Your task to perform on an android device: clear all cookies in the chrome app Image 0: 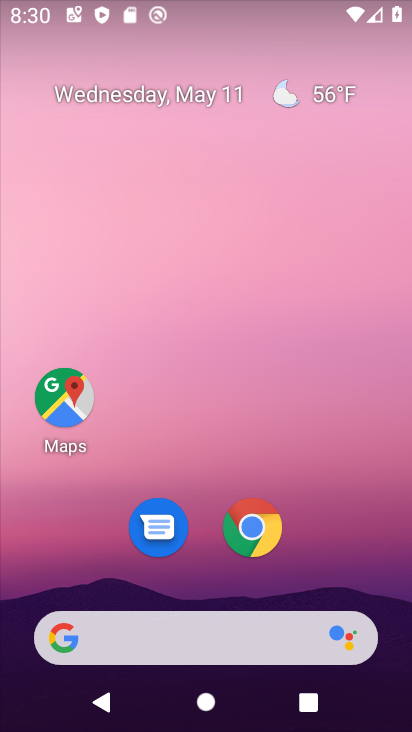
Step 0: click (253, 536)
Your task to perform on an android device: clear all cookies in the chrome app Image 1: 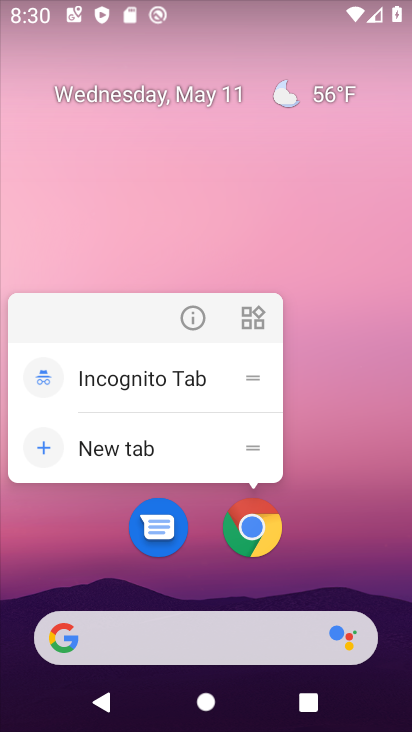
Step 1: click (253, 536)
Your task to perform on an android device: clear all cookies in the chrome app Image 2: 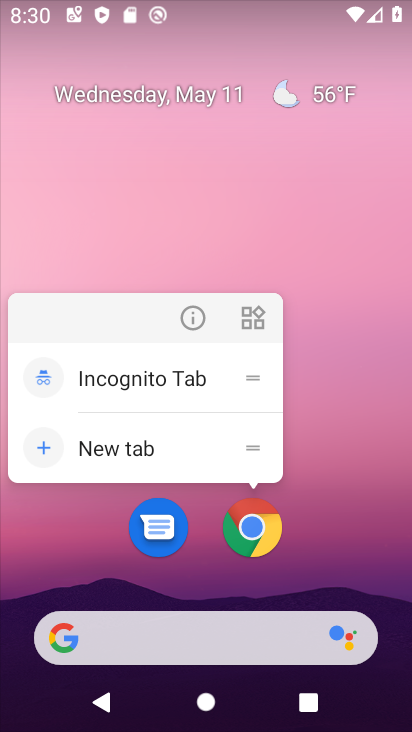
Step 2: click (254, 535)
Your task to perform on an android device: clear all cookies in the chrome app Image 3: 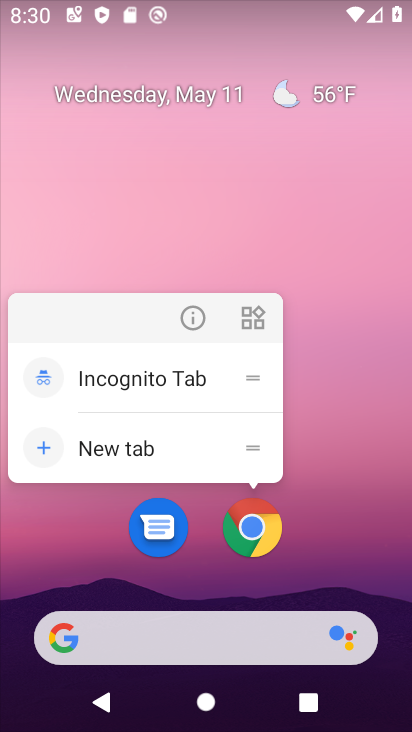
Step 3: click (262, 525)
Your task to perform on an android device: clear all cookies in the chrome app Image 4: 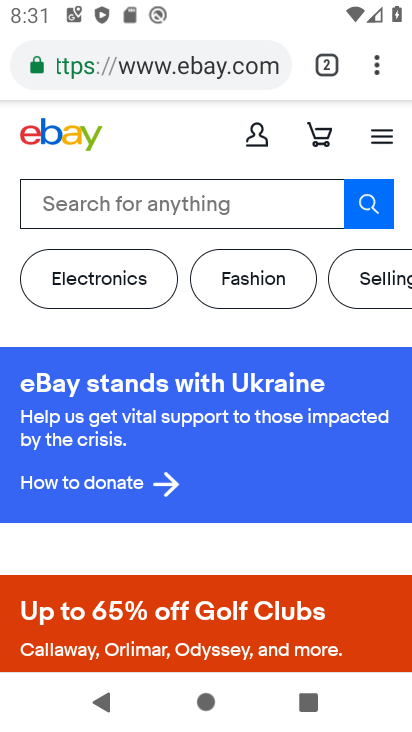
Step 4: drag from (378, 66) to (296, 583)
Your task to perform on an android device: clear all cookies in the chrome app Image 5: 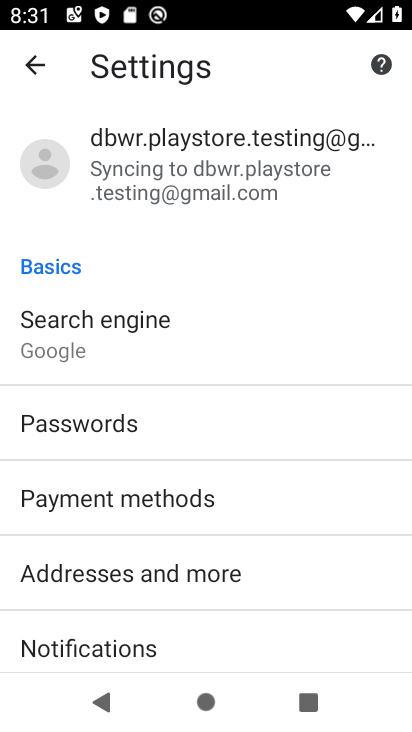
Step 5: drag from (197, 634) to (282, 241)
Your task to perform on an android device: clear all cookies in the chrome app Image 6: 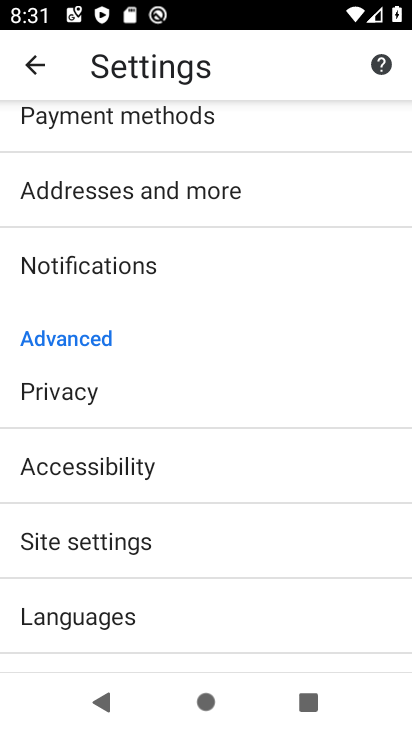
Step 6: click (128, 550)
Your task to perform on an android device: clear all cookies in the chrome app Image 7: 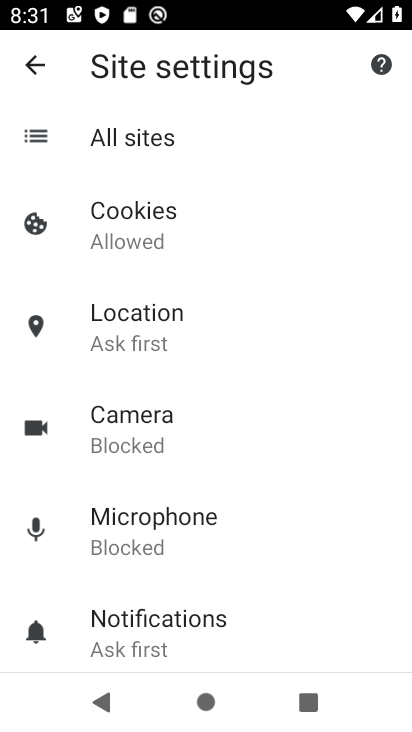
Step 7: press back button
Your task to perform on an android device: clear all cookies in the chrome app Image 8: 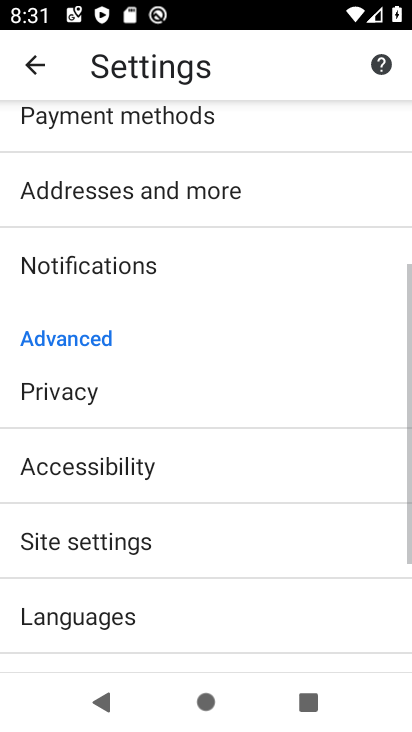
Step 8: drag from (122, 593) to (201, 504)
Your task to perform on an android device: clear all cookies in the chrome app Image 9: 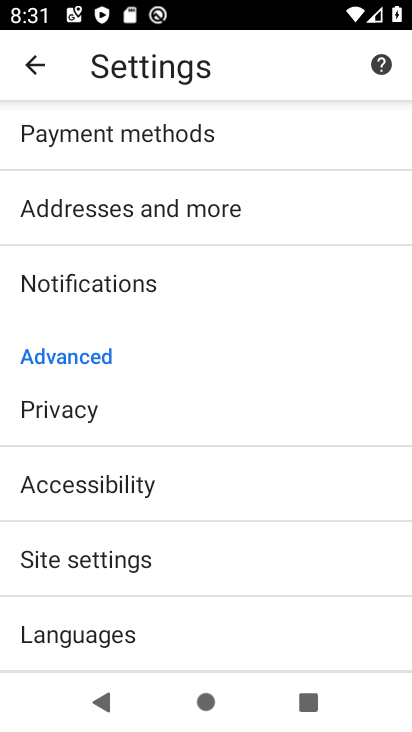
Step 9: click (139, 410)
Your task to perform on an android device: clear all cookies in the chrome app Image 10: 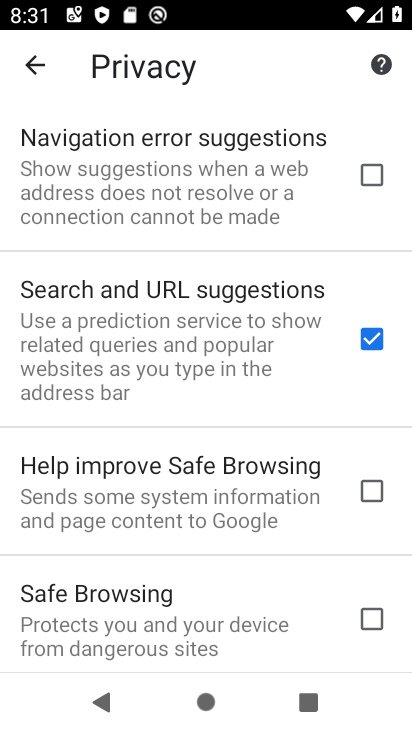
Step 10: drag from (160, 668) to (273, 141)
Your task to perform on an android device: clear all cookies in the chrome app Image 11: 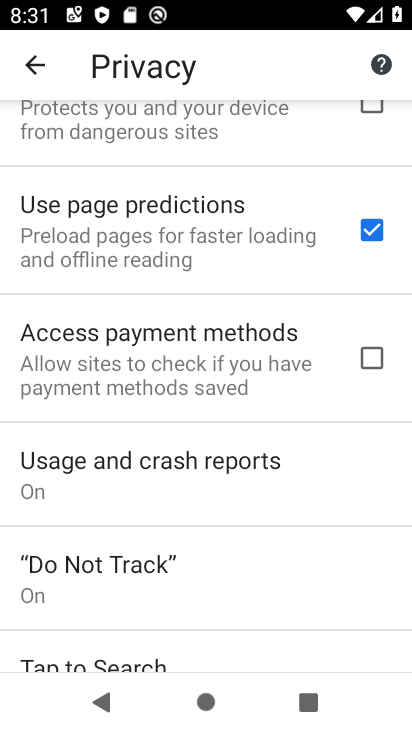
Step 11: drag from (174, 616) to (271, 152)
Your task to perform on an android device: clear all cookies in the chrome app Image 12: 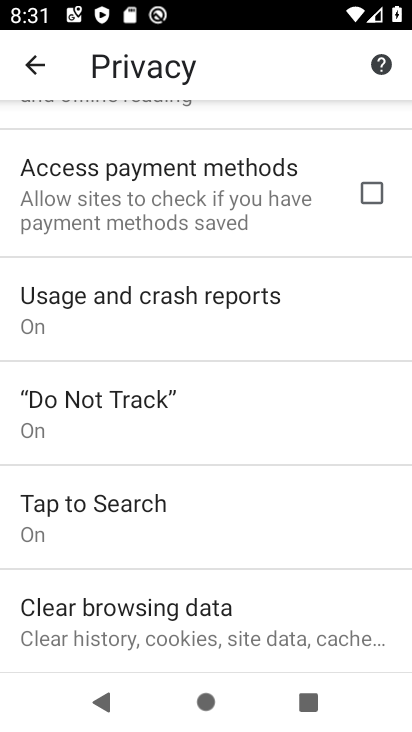
Step 12: click (171, 638)
Your task to perform on an android device: clear all cookies in the chrome app Image 13: 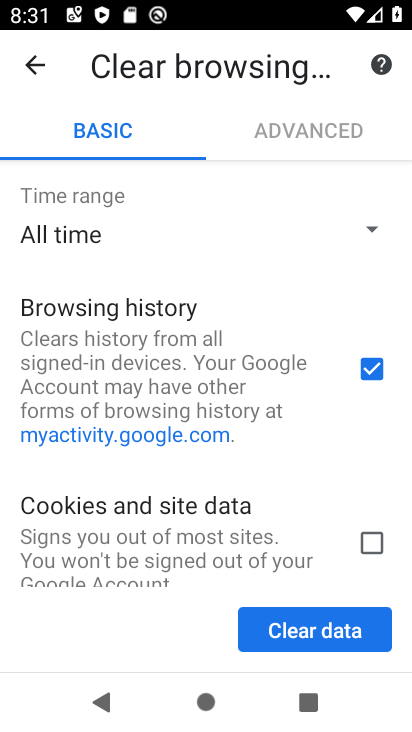
Step 13: click (355, 533)
Your task to perform on an android device: clear all cookies in the chrome app Image 14: 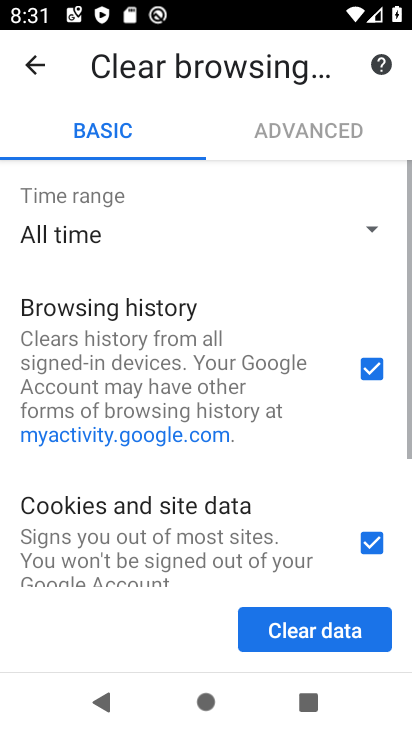
Step 14: click (379, 359)
Your task to perform on an android device: clear all cookies in the chrome app Image 15: 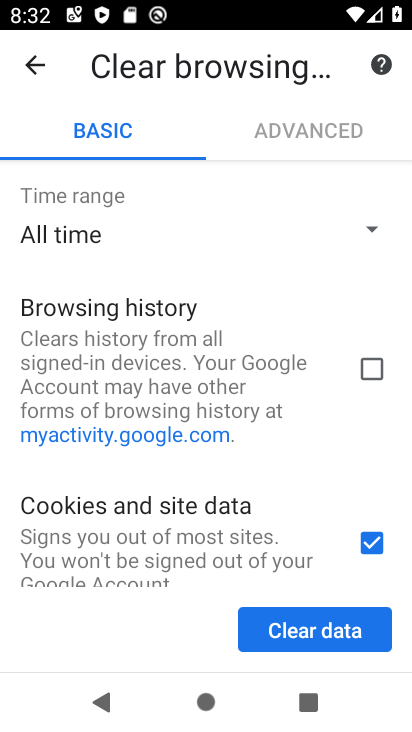
Step 15: drag from (199, 548) to (288, 201)
Your task to perform on an android device: clear all cookies in the chrome app Image 16: 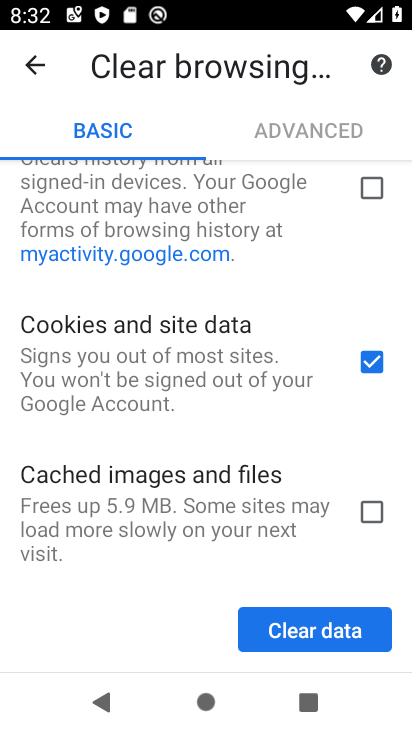
Step 16: click (313, 643)
Your task to perform on an android device: clear all cookies in the chrome app Image 17: 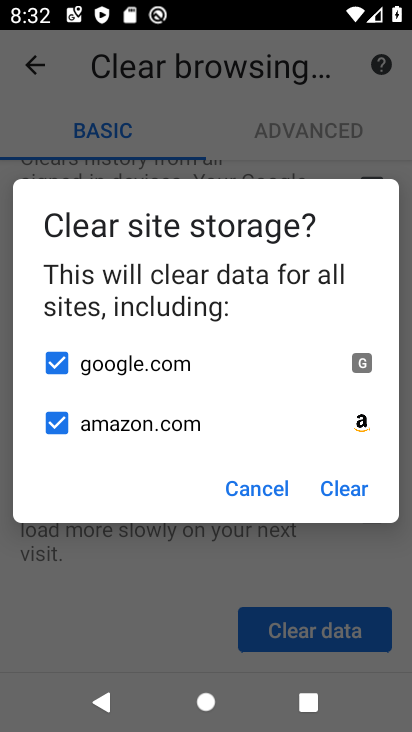
Step 17: click (381, 465)
Your task to perform on an android device: clear all cookies in the chrome app Image 18: 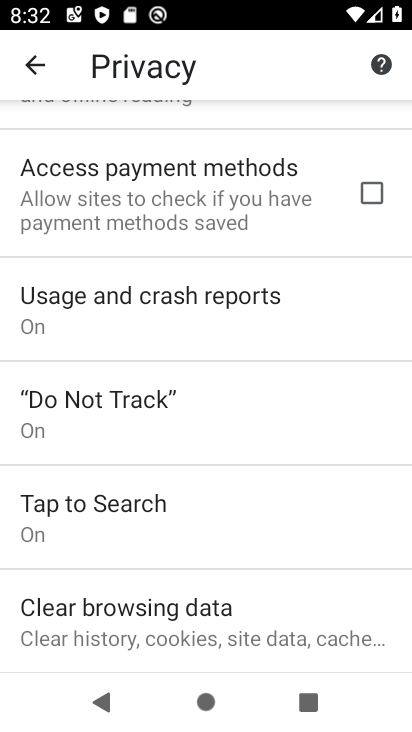
Step 18: task complete